Your task to perform on an android device: turn off translation in the chrome app Image 0: 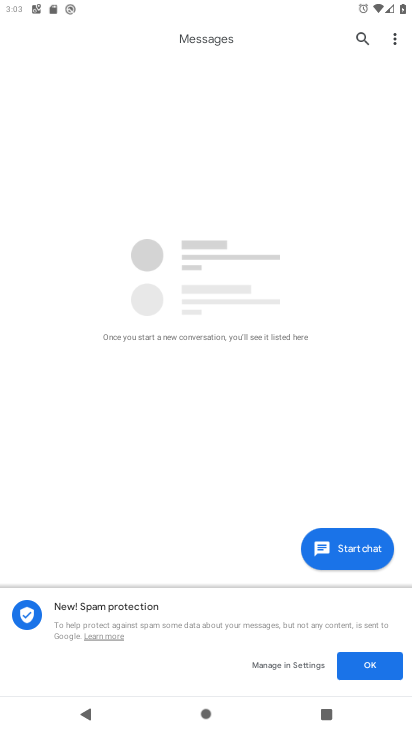
Step 0: press home button
Your task to perform on an android device: turn off translation in the chrome app Image 1: 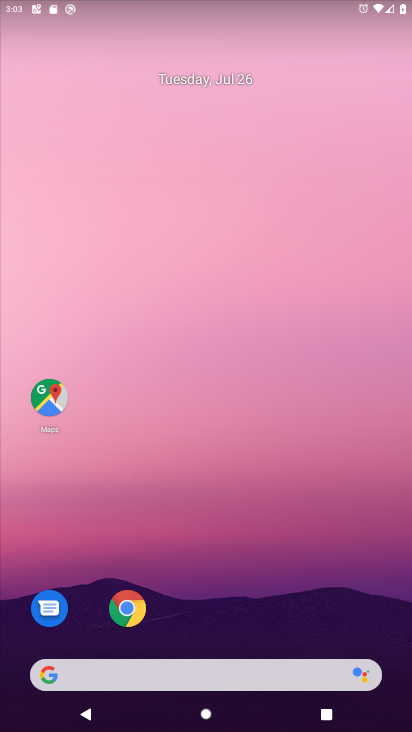
Step 1: click (126, 611)
Your task to perform on an android device: turn off translation in the chrome app Image 2: 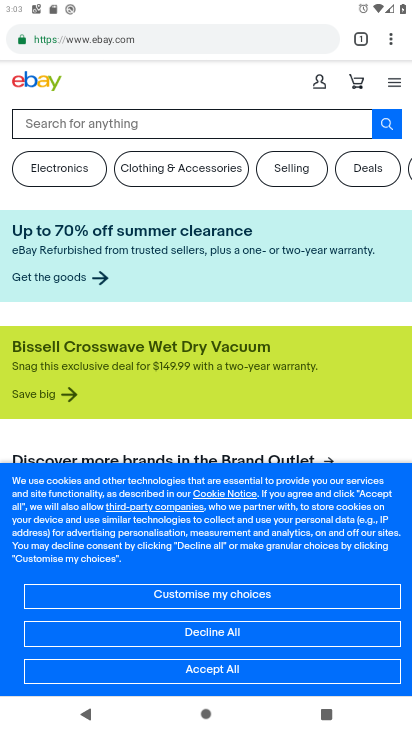
Step 2: click (389, 44)
Your task to perform on an android device: turn off translation in the chrome app Image 3: 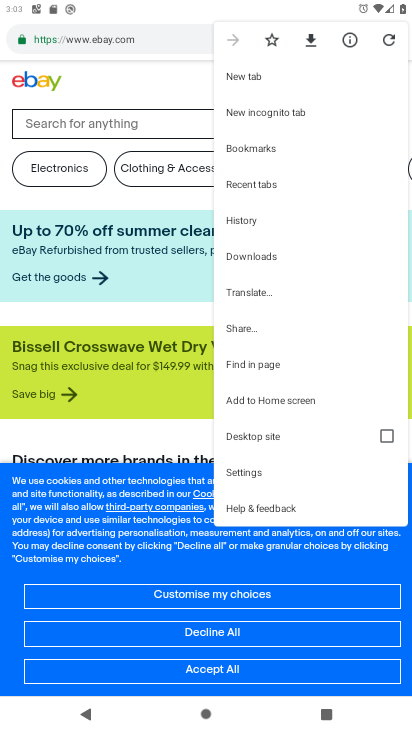
Step 3: click (267, 475)
Your task to perform on an android device: turn off translation in the chrome app Image 4: 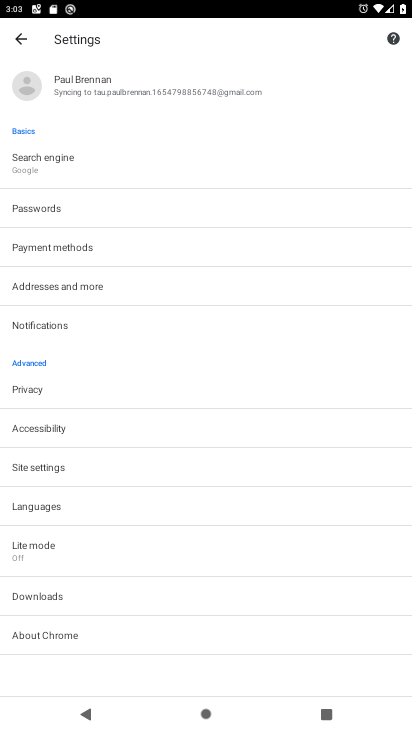
Step 4: click (119, 504)
Your task to perform on an android device: turn off translation in the chrome app Image 5: 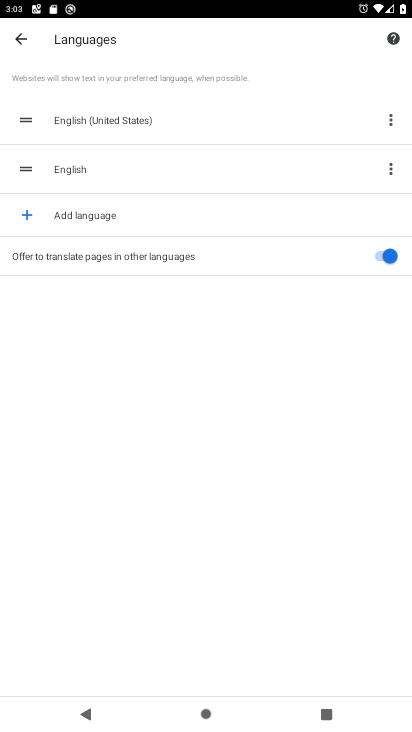
Step 5: click (381, 244)
Your task to perform on an android device: turn off translation in the chrome app Image 6: 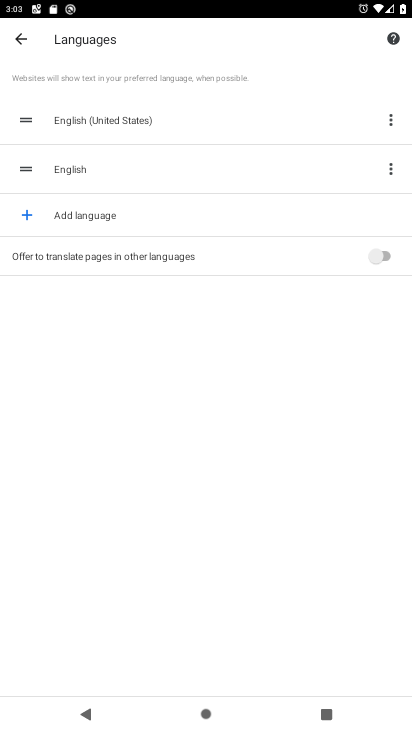
Step 6: task complete